Your task to perform on an android device: Open Wikipedia Image 0: 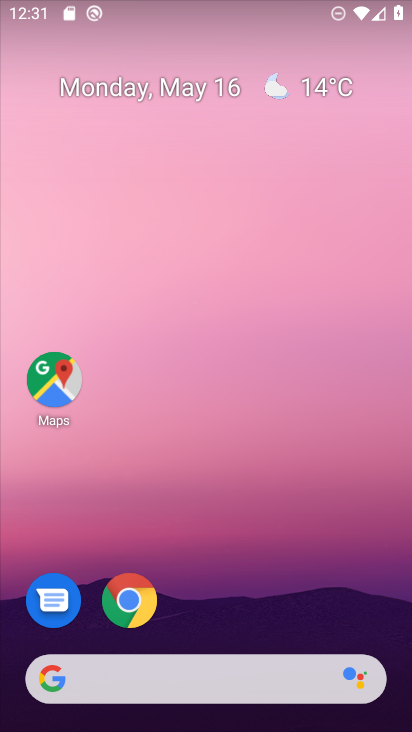
Step 0: press home button
Your task to perform on an android device: Open Wikipedia Image 1: 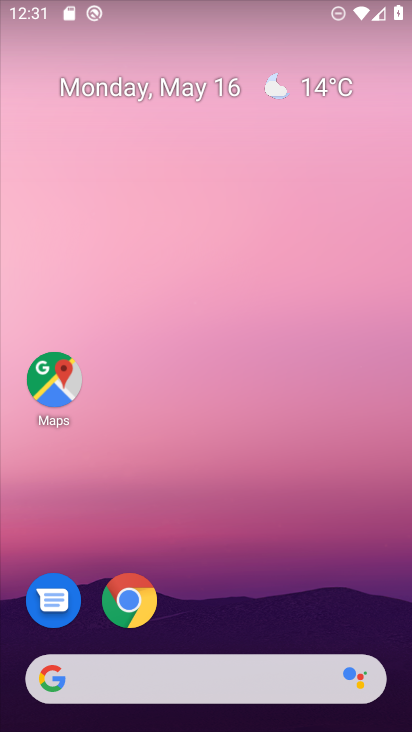
Step 1: click (126, 591)
Your task to perform on an android device: Open Wikipedia Image 2: 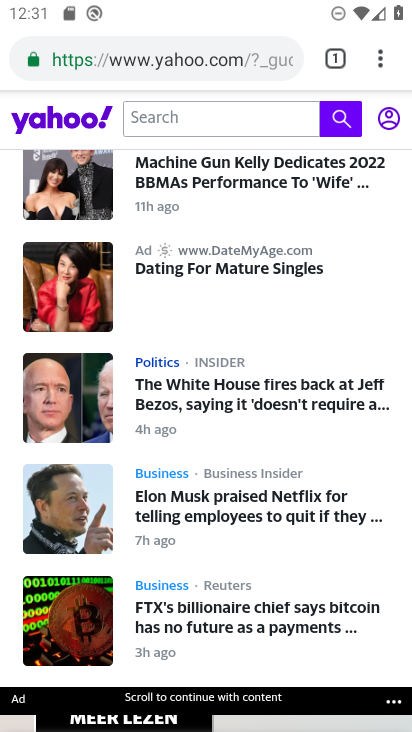
Step 2: click (334, 54)
Your task to perform on an android device: Open Wikipedia Image 3: 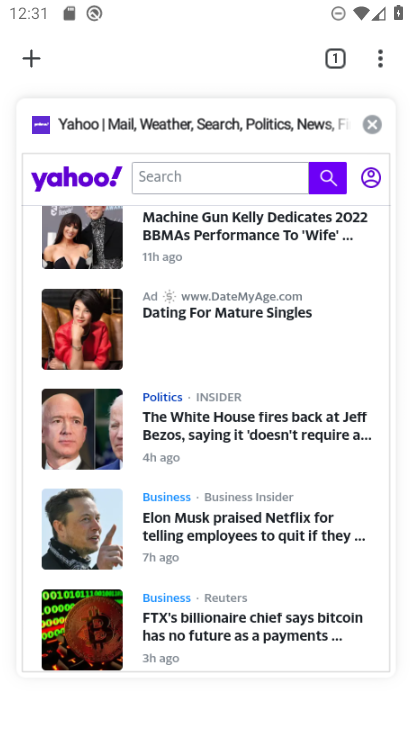
Step 3: click (370, 119)
Your task to perform on an android device: Open Wikipedia Image 4: 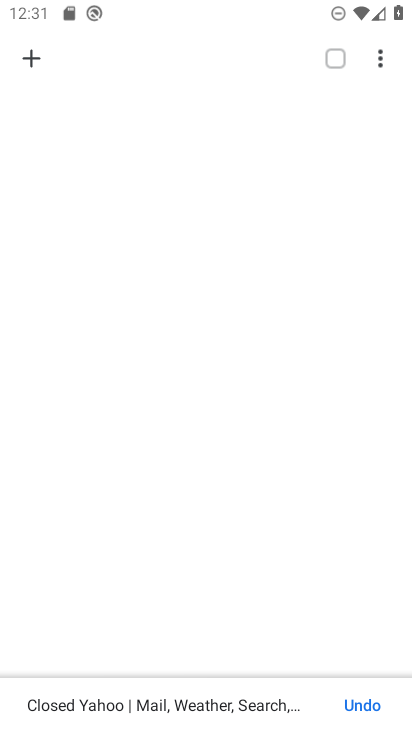
Step 4: click (34, 57)
Your task to perform on an android device: Open Wikipedia Image 5: 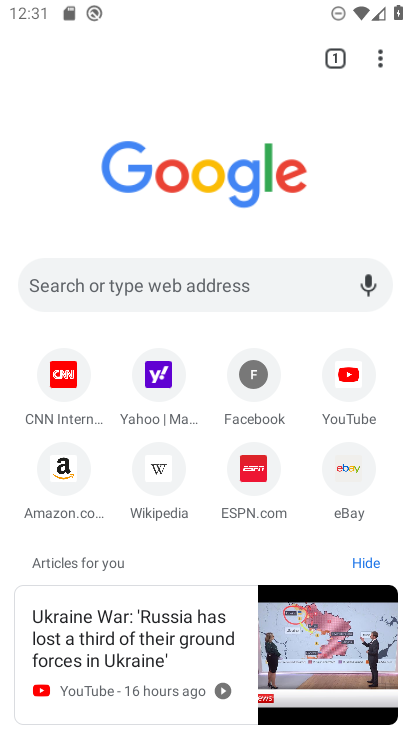
Step 5: click (155, 461)
Your task to perform on an android device: Open Wikipedia Image 6: 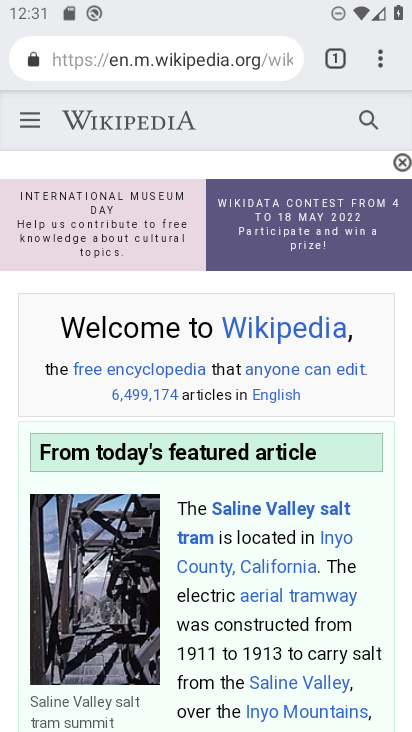
Step 6: task complete